Your task to perform on an android device: turn off javascript in the chrome app Image 0: 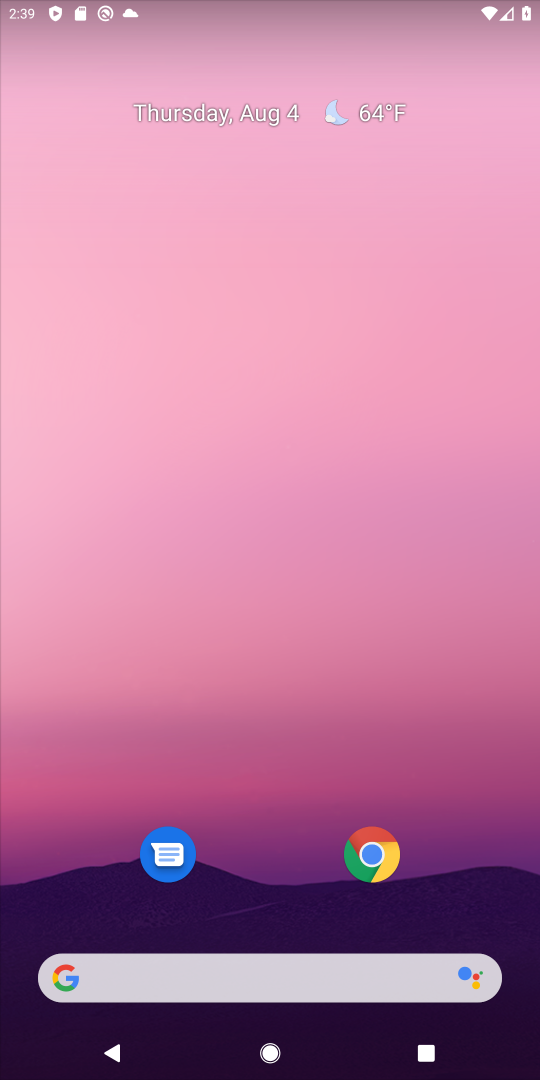
Step 0: click (355, 846)
Your task to perform on an android device: turn off javascript in the chrome app Image 1: 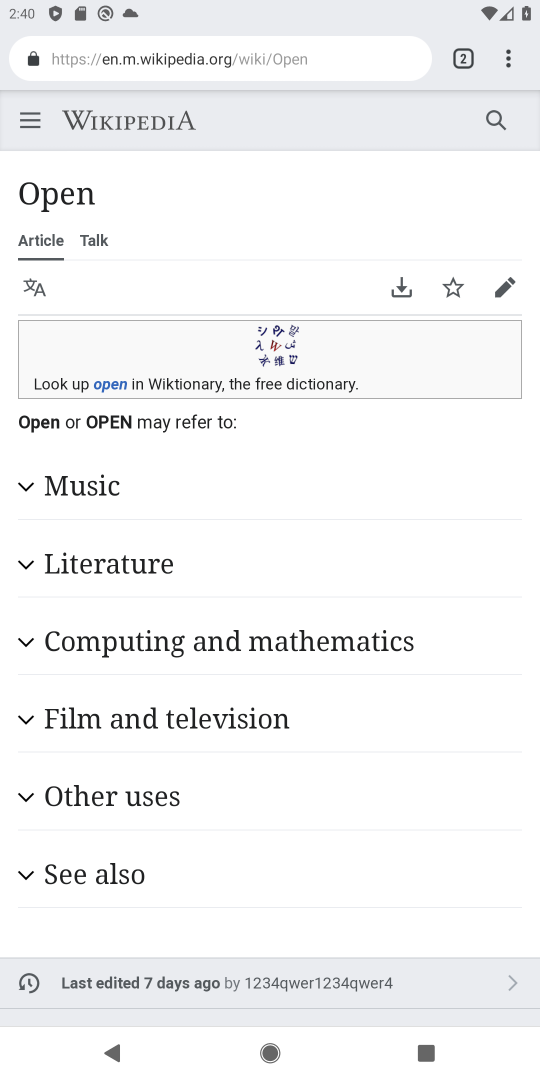
Step 1: task complete